Your task to perform on an android device: Open settings on Google Maps Image 0: 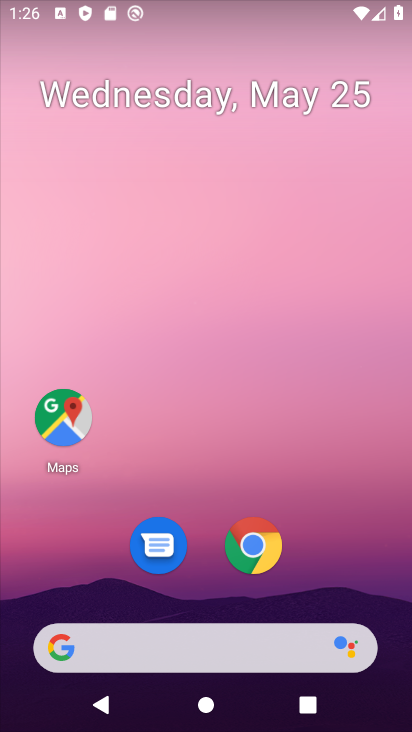
Step 0: click (80, 415)
Your task to perform on an android device: Open settings on Google Maps Image 1: 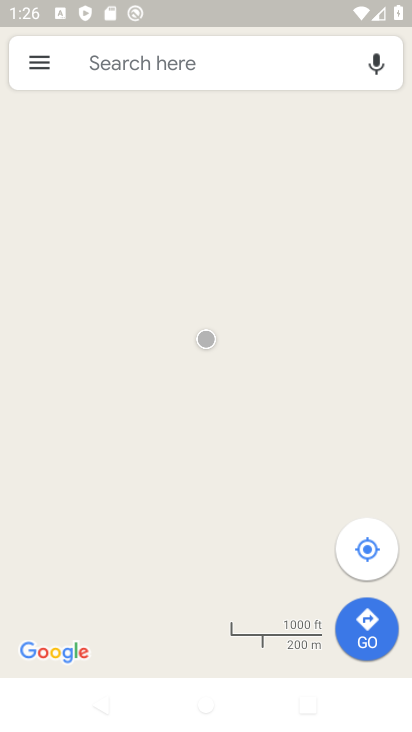
Step 1: task complete